Your task to perform on an android device: Open my contact list Image 0: 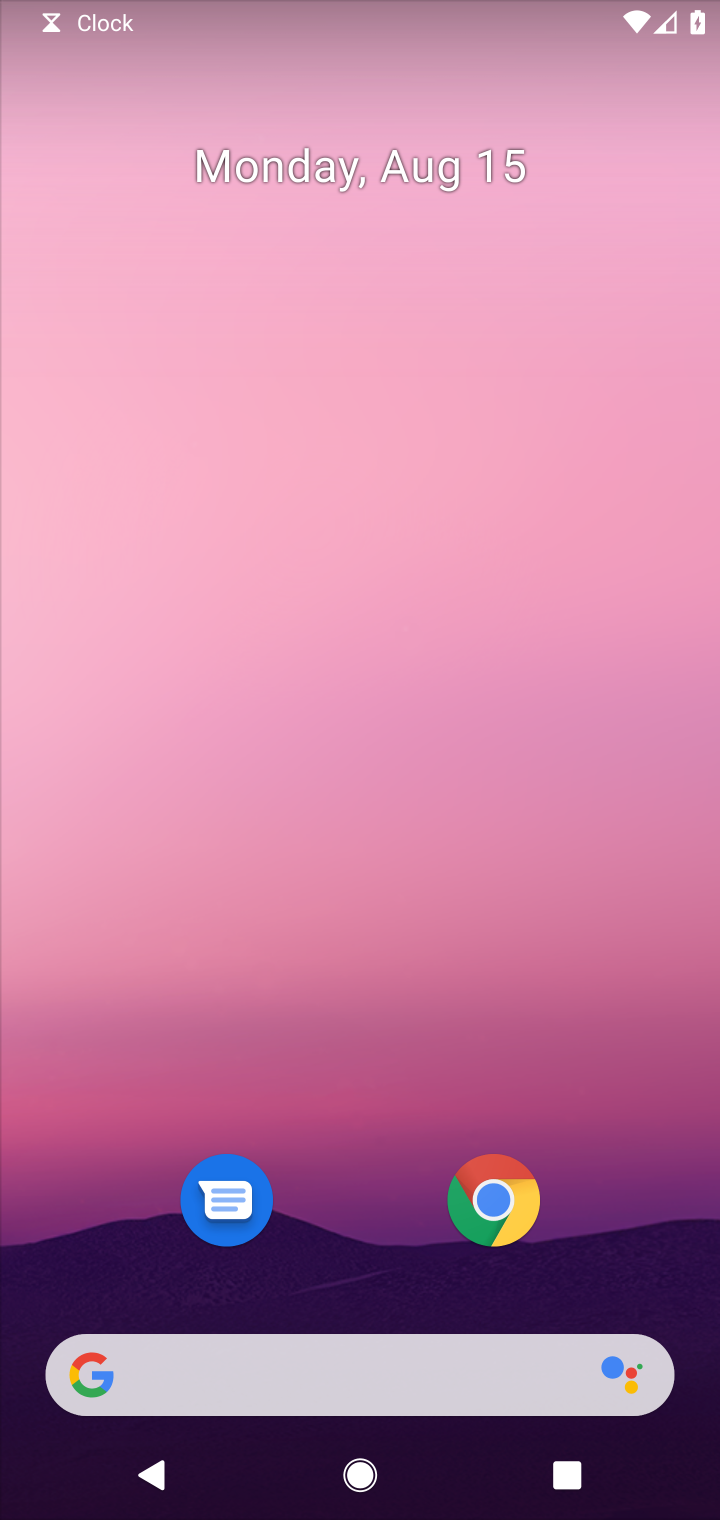
Step 0: drag from (336, 1162) to (337, 250)
Your task to perform on an android device: Open my contact list Image 1: 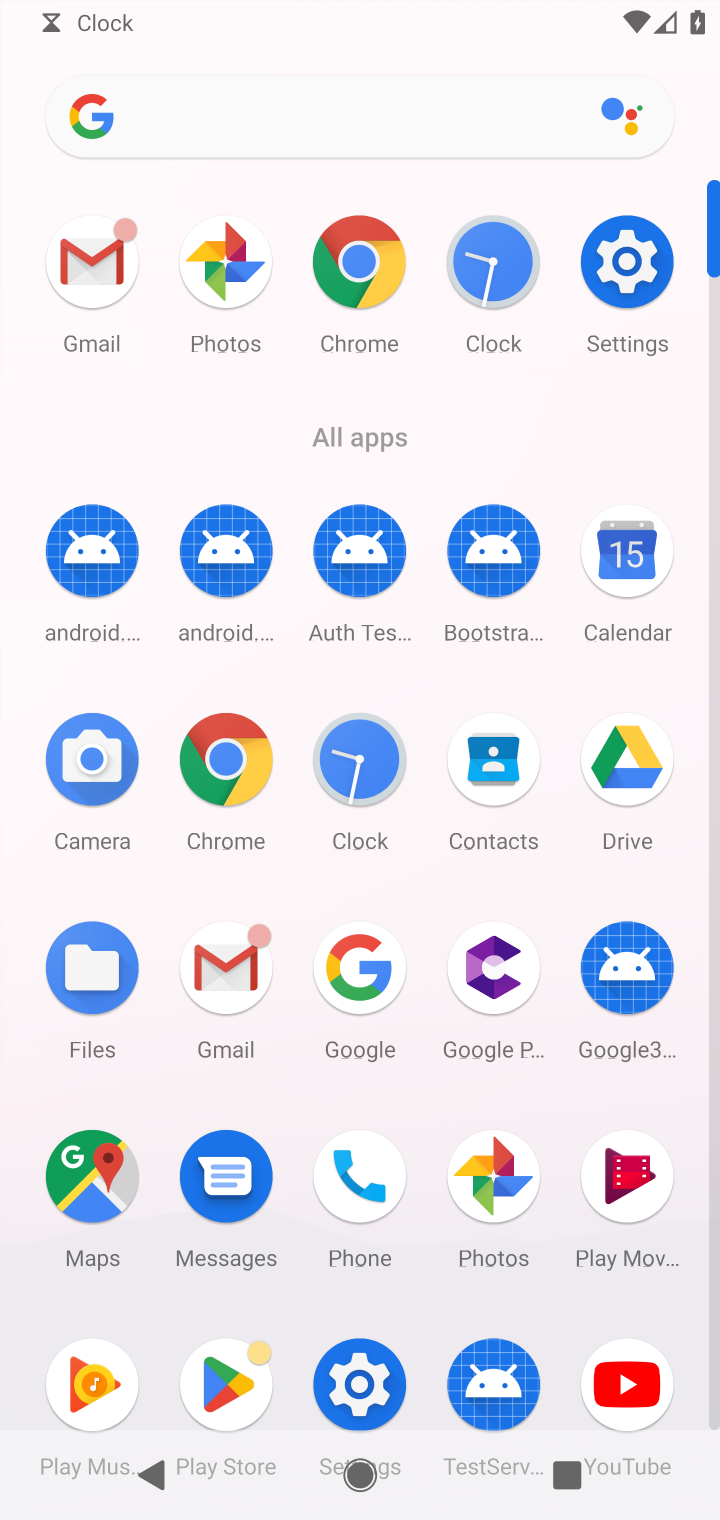
Step 1: click (492, 780)
Your task to perform on an android device: Open my contact list Image 2: 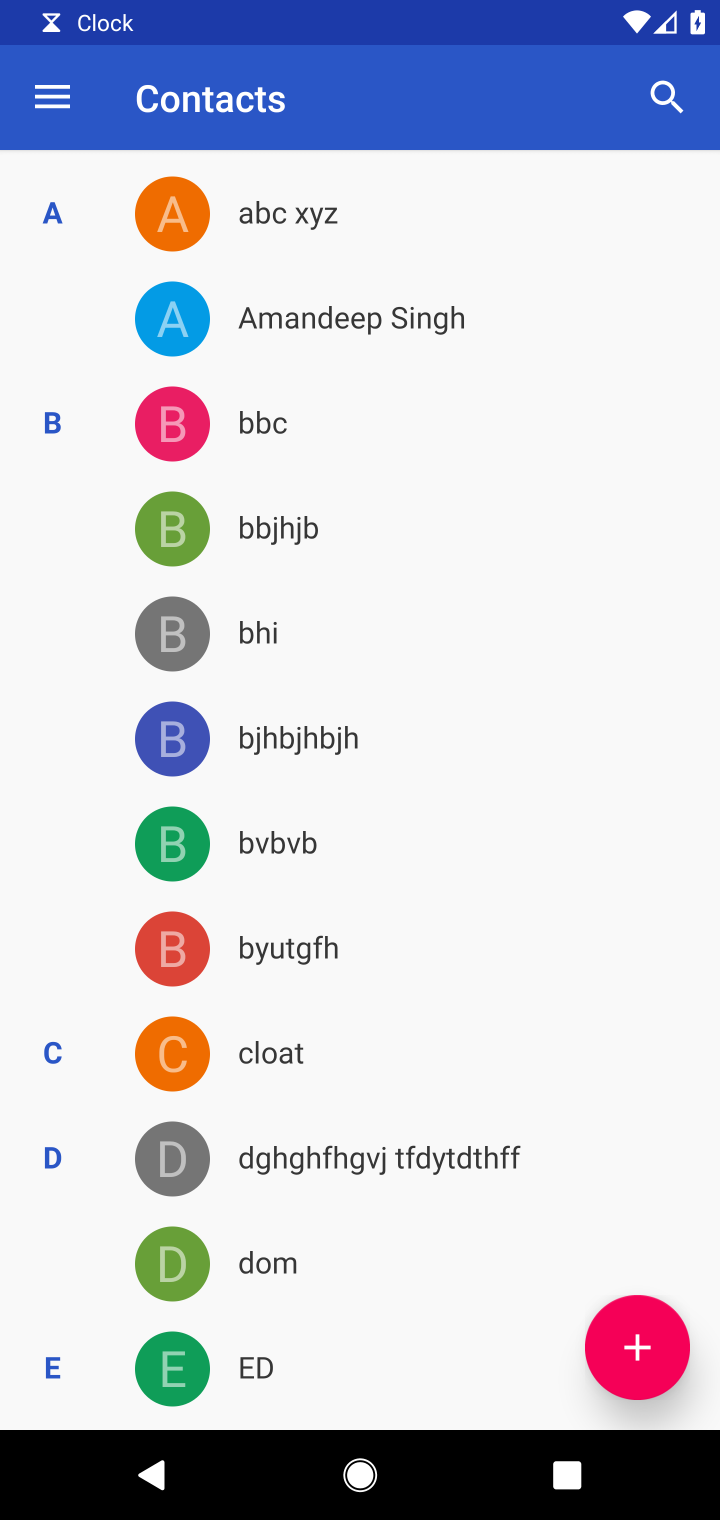
Step 2: task complete